Your task to perform on an android device: turn off improve location accuracy Image 0: 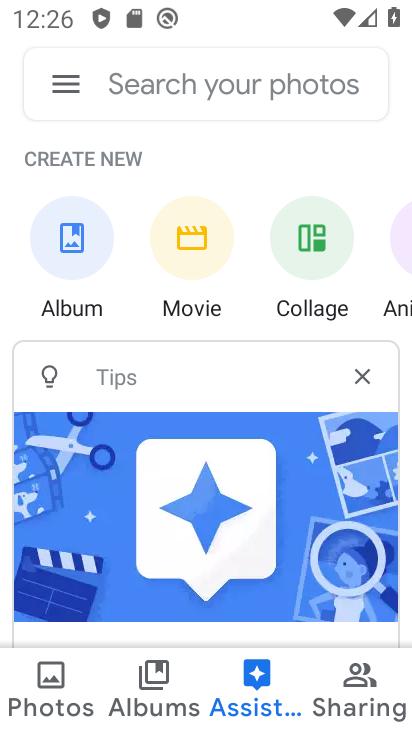
Step 0: press home button
Your task to perform on an android device: turn off improve location accuracy Image 1: 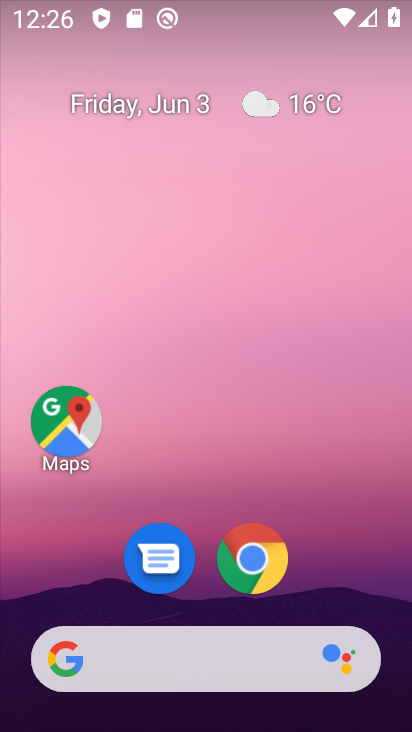
Step 1: drag from (351, 582) to (351, 195)
Your task to perform on an android device: turn off improve location accuracy Image 2: 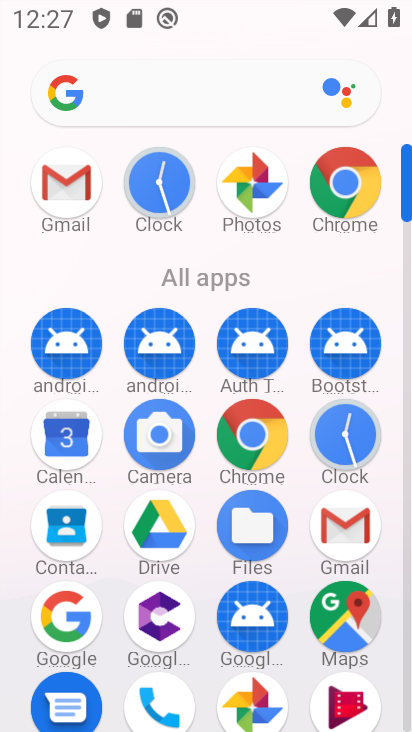
Step 2: drag from (201, 493) to (212, 236)
Your task to perform on an android device: turn off improve location accuracy Image 3: 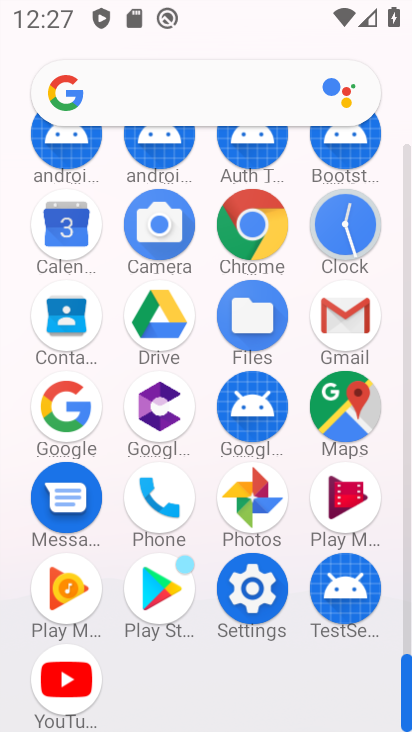
Step 3: click (260, 603)
Your task to perform on an android device: turn off improve location accuracy Image 4: 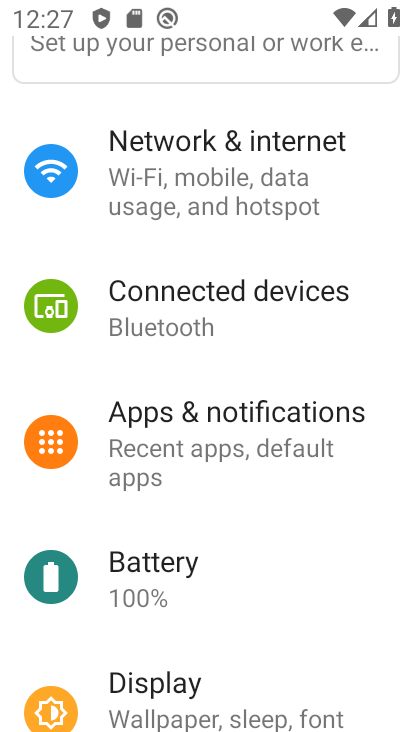
Step 4: drag from (343, 527) to (374, 356)
Your task to perform on an android device: turn off improve location accuracy Image 5: 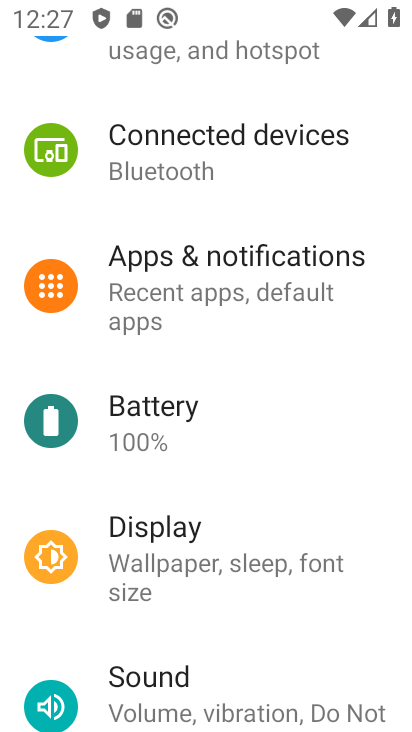
Step 5: drag from (326, 618) to (356, 431)
Your task to perform on an android device: turn off improve location accuracy Image 6: 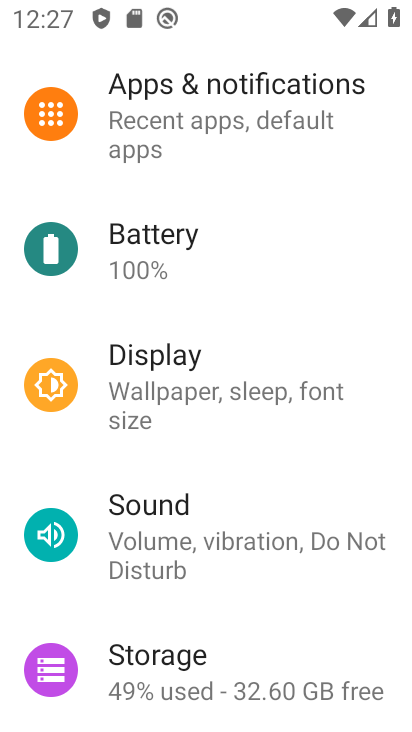
Step 6: drag from (316, 606) to (319, 424)
Your task to perform on an android device: turn off improve location accuracy Image 7: 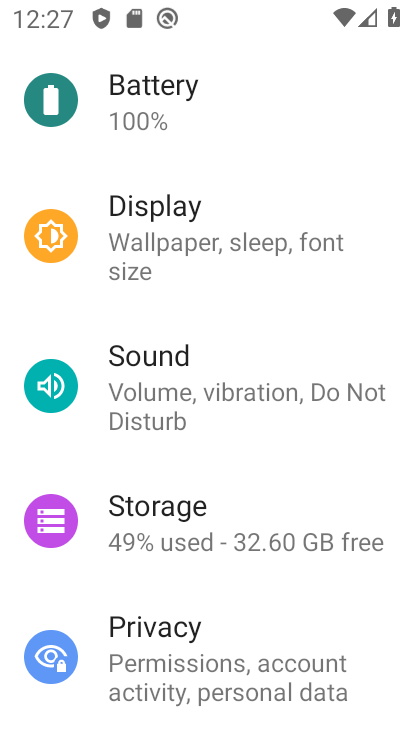
Step 7: drag from (310, 602) to (310, 451)
Your task to perform on an android device: turn off improve location accuracy Image 8: 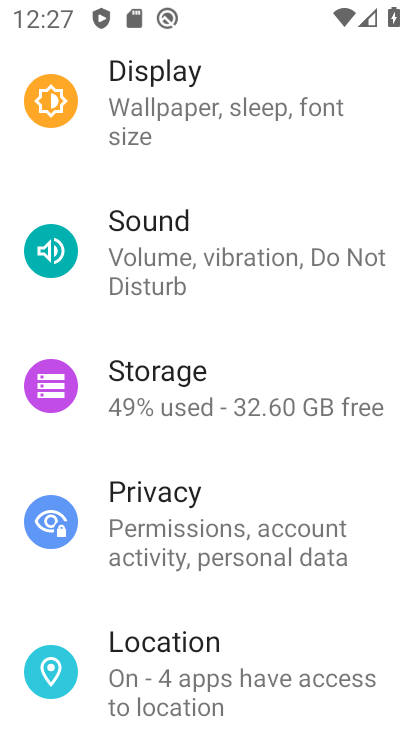
Step 8: drag from (296, 609) to (305, 456)
Your task to perform on an android device: turn off improve location accuracy Image 9: 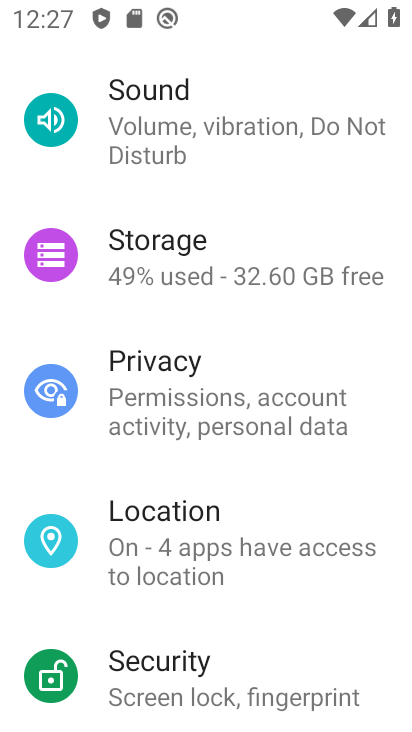
Step 9: click (305, 543)
Your task to perform on an android device: turn off improve location accuracy Image 10: 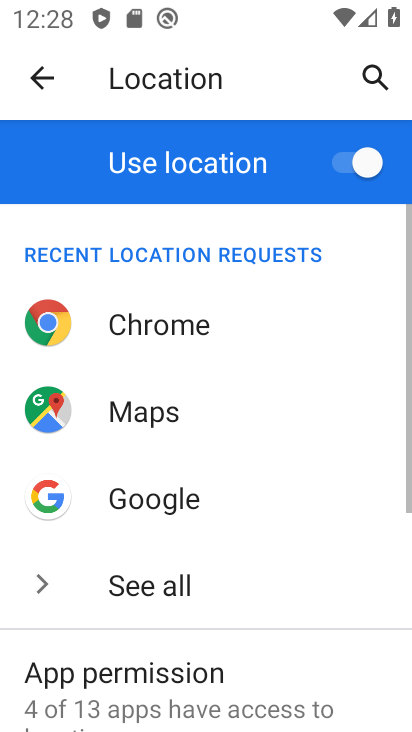
Step 10: drag from (316, 627) to (340, 394)
Your task to perform on an android device: turn off improve location accuracy Image 11: 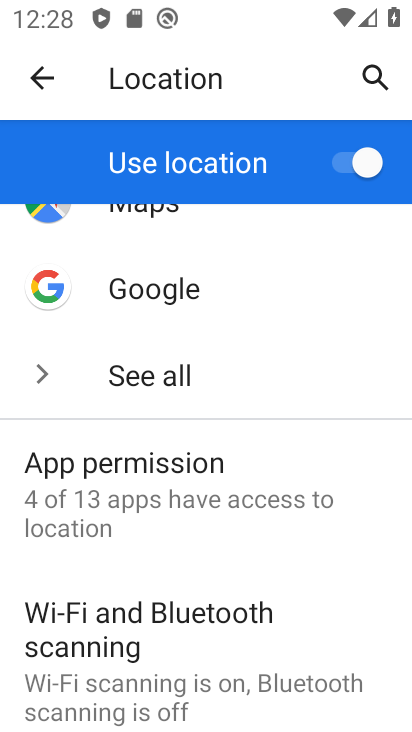
Step 11: drag from (314, 574) to (313, 335)
Your task to perform on an android device: turn off improve location accuracy Image 12: 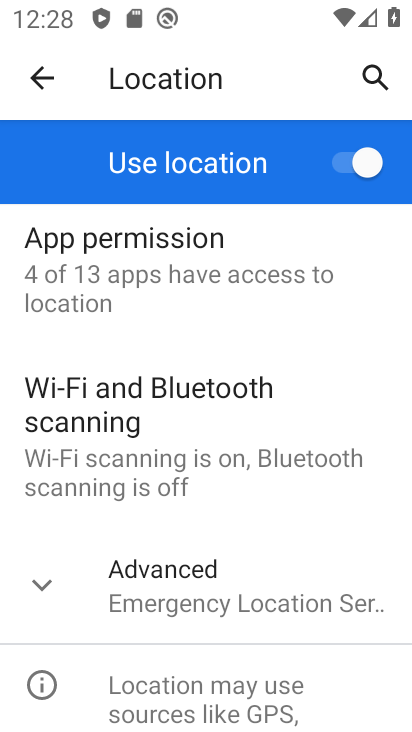
Step 12: click (307, 608)
Your task to perform on an android device: turn off improve location accuracy Image 13: 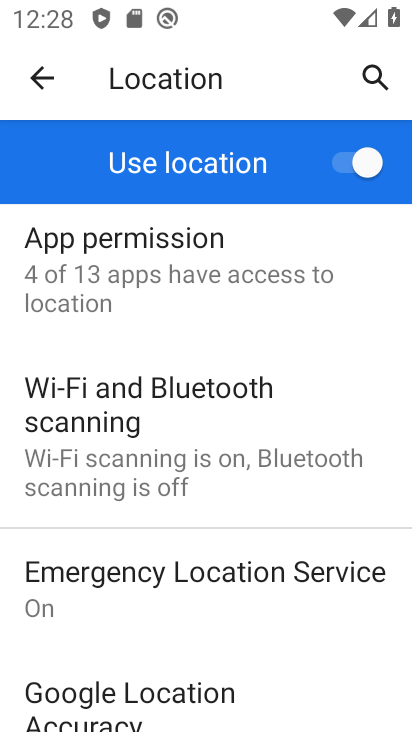
Step 13: drag from (307, 610) to (319, 447)
Your task to perform on an android device: turn off improve location accuracy Image 14: 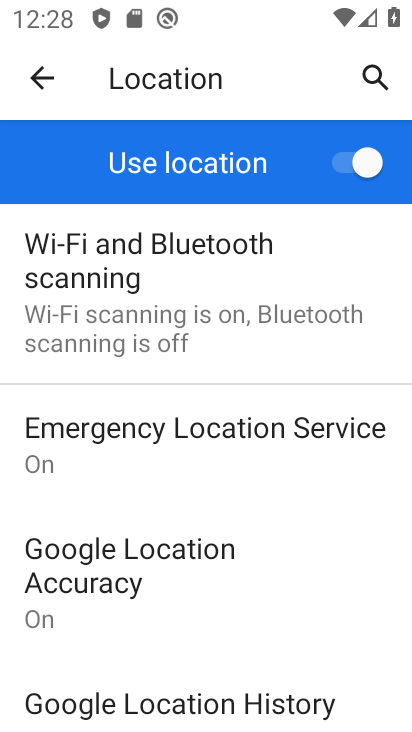
Step 14: drag from (295, 584) to (294, 444)
Your task to perform on an android device: turn off improve location accuracy Image 15: 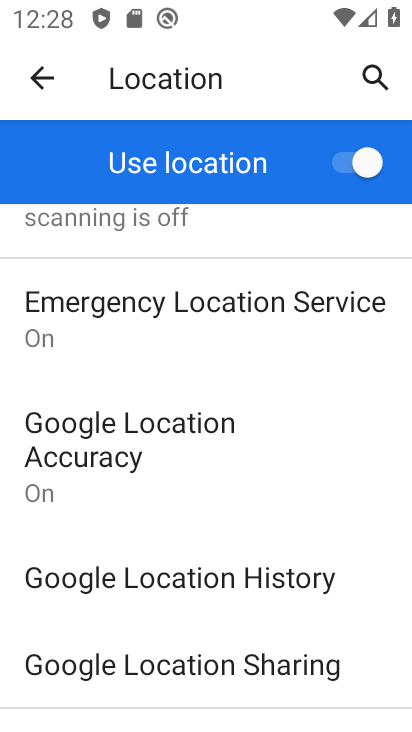
Step 15: drag from (297, 610) to (294, 466)
Your task to perform on an android device: turn off improve location accuracy Image 16: 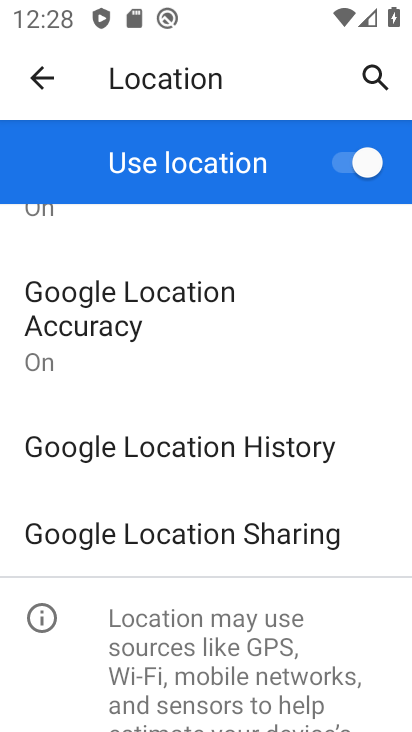
Step 16: click (140, 344)
Your task to perform on an android device: turn off improve location accuracy Image 17: 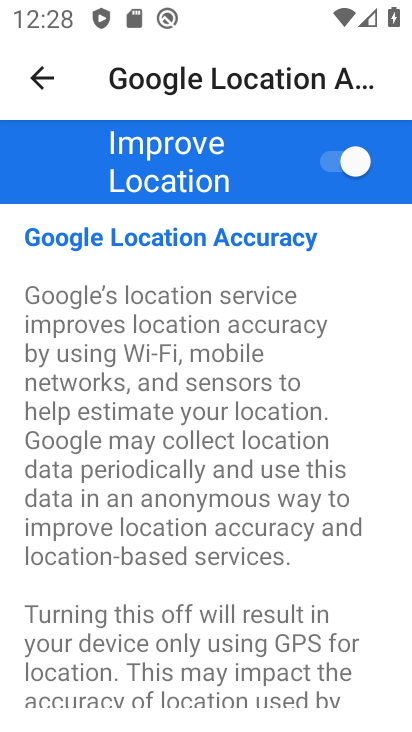
Step 17: click (332, 165)
Your task to perform on an android device: turn off improve location accuracy Image 18: 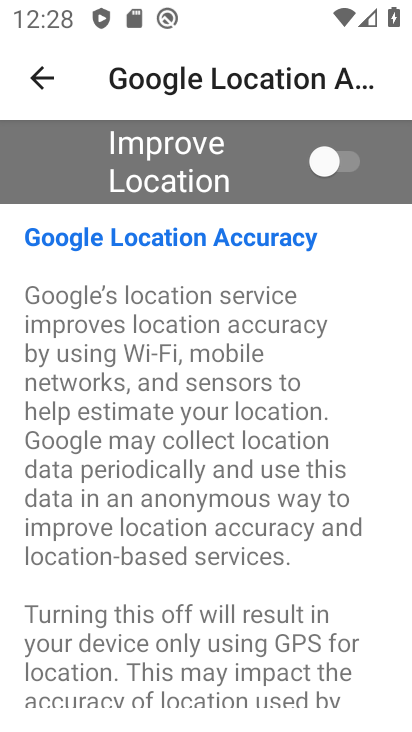
Step 18: task complete